Your task to perform on an android device: add a contact Image 0: 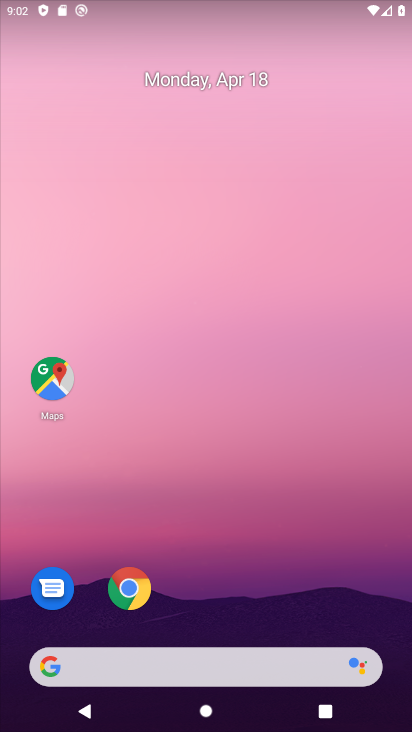
Step 0: drag from (298, 599) to (285, 72)
Your task to perform on an android device: add a contact Image 1: 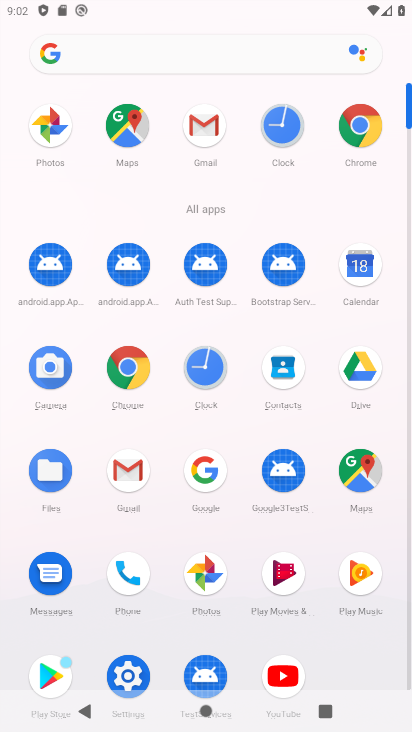
Step 1: drag from (250, 184) to (259, 40)
Your task to perform on an android device: add a contact Image 2: 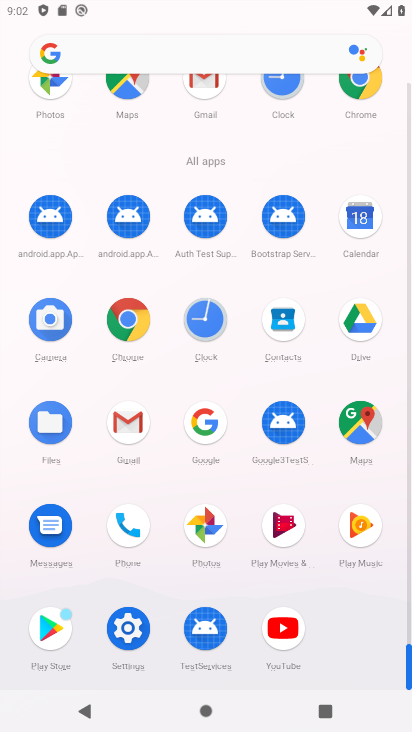
Step 2: click (119, 520)
Your task to perform on an android device: add a contact Image 3: 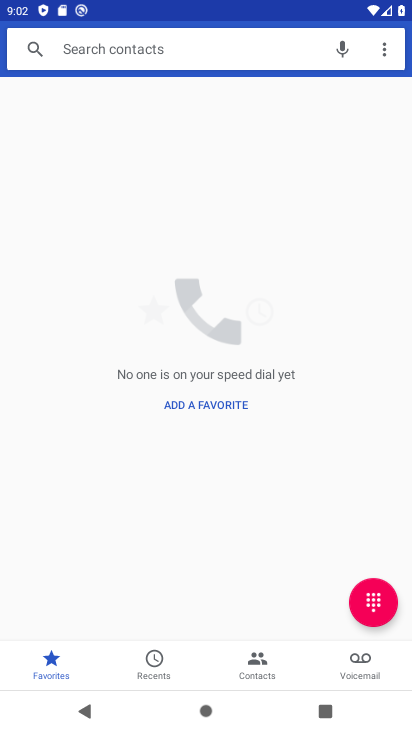
Step 3: click (249, 667)
Your task to perform on an android device: add a contact Image 4: 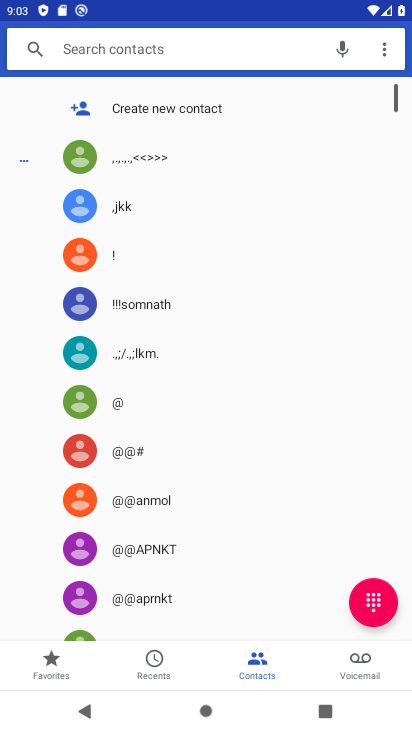
Step 4: click (135, 99)
Your task to perform on an android device: add a contact Image 5: 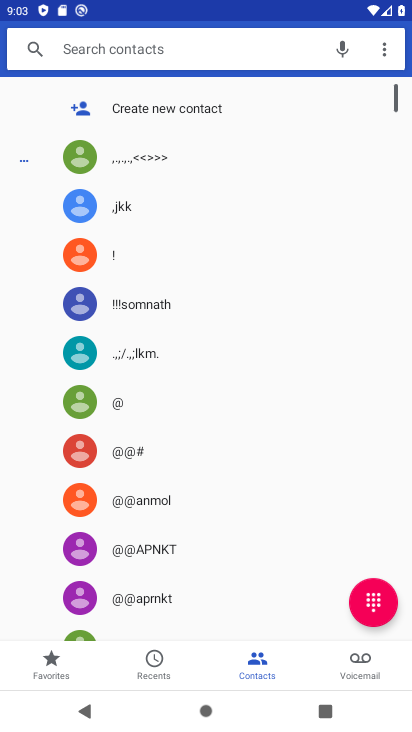
Step 5: click (176, 108)
Your task to perform on an android device: add a contact Image 6: 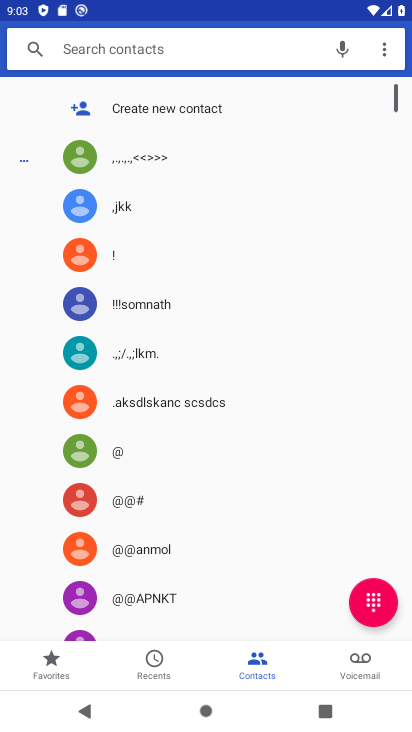
Step 6: click (178, 109)
Your task to perform on an android device: add a contact Image 7: 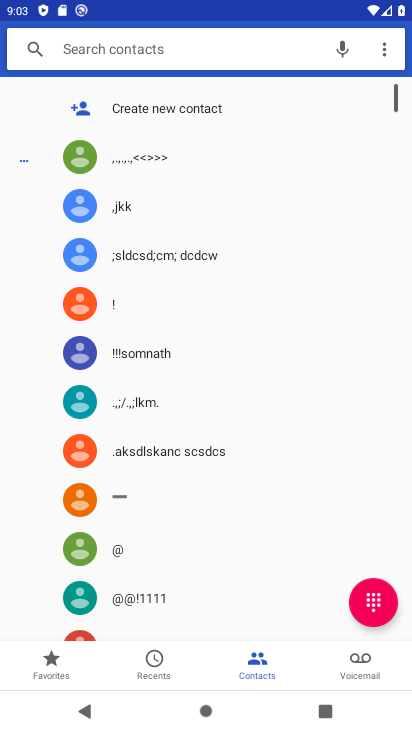
Step 7: click (166, 108)
Your task to perform on an android device: add a contact Image 8: 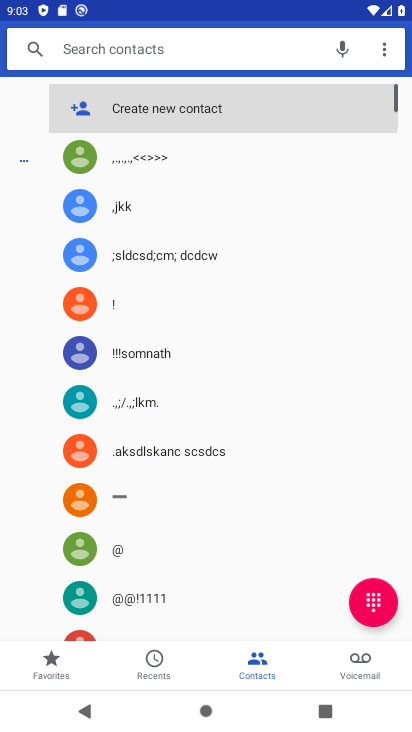
Step 8: click (166, 108)
Your task to perform on an android device: add a contact Image 9: 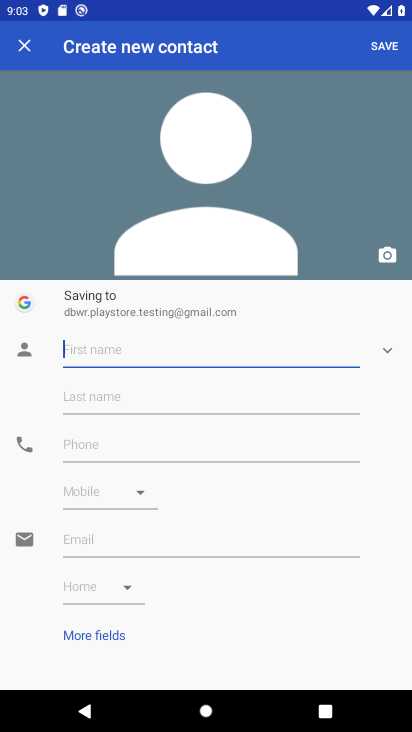
Step 9: type "mmll;kh"
Your task to perform on an android device: add a contact Image 10: 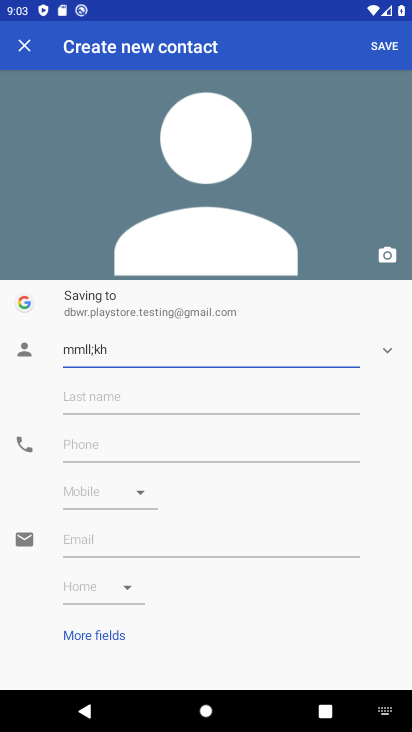
Step 10: click (112, 442)
Your task to perform on an android device: add a contact Image 11: 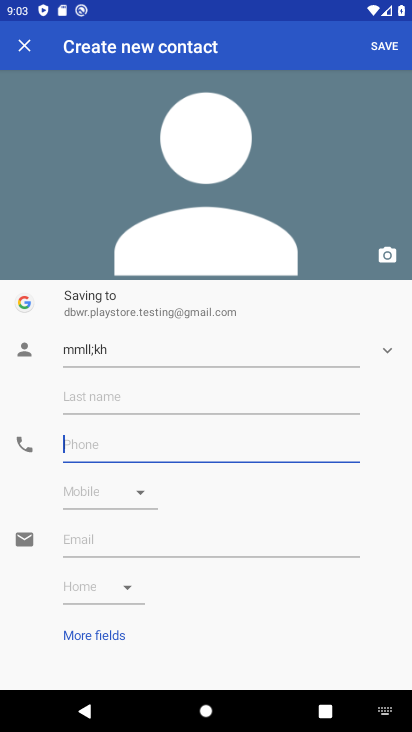
Step 11: type "11122"
Your task to perform on an android device: add a contact Image 12: 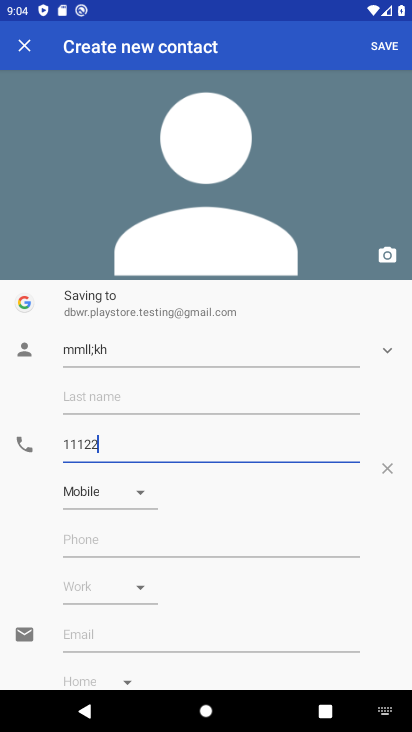
Step 12: click (375, 40)
Your task to perform on an android device: add a contact Image 13: 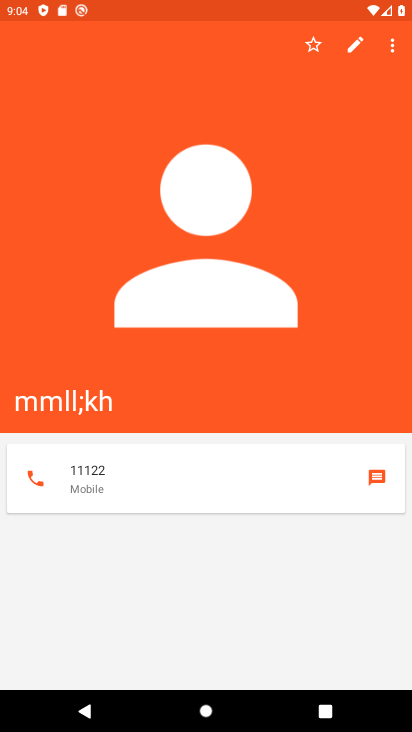
Step 13: task complete